Your task to perform on an android device: turn off wifi Image 0: 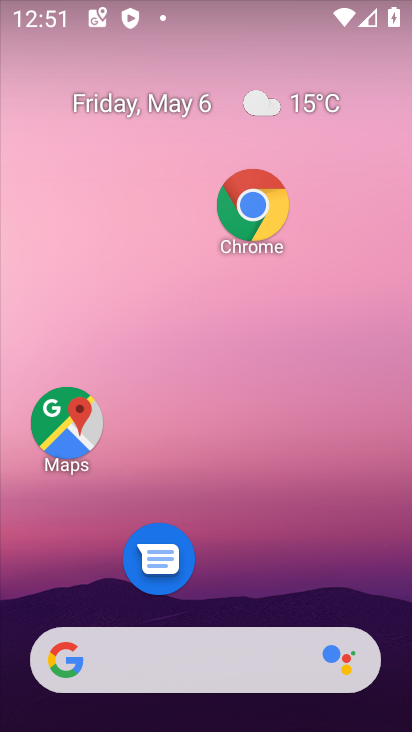
Step 0: drag from (222, 598) to (223, 45)
Your task to perform on an android device: turn off wifi Image 1: 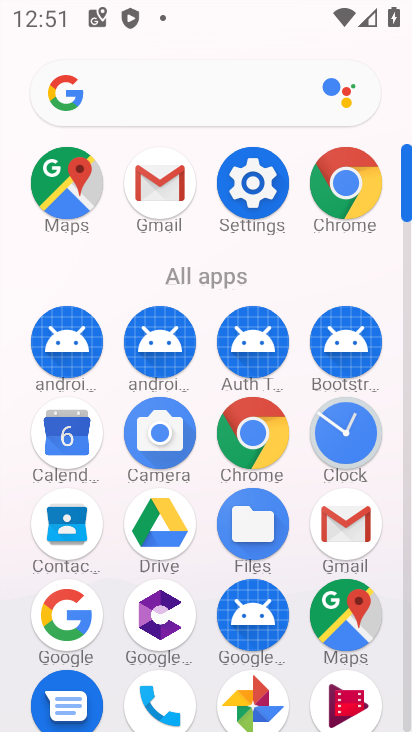
Step 1: click (255, 181)
Your task to perform on an android device: turn off wifi Image 2: 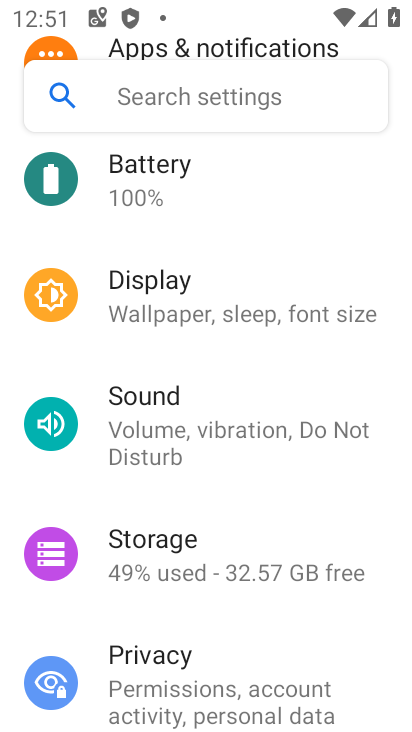
Step 2: drag from (255, 181) to (231, 429)
Your task to perform on an android device: turn off wifi Image 3: 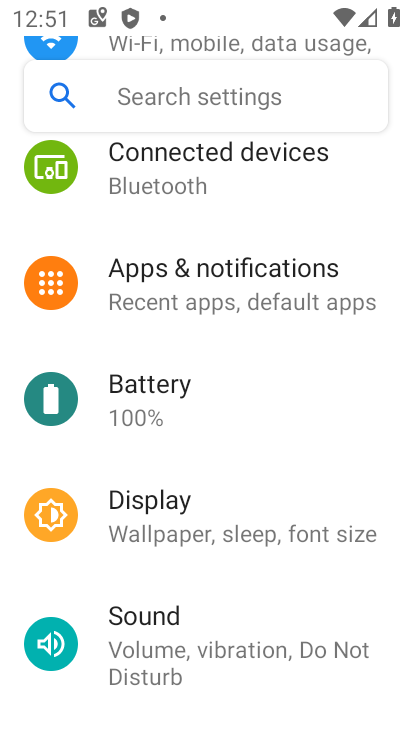
Step 3: drag from (238, 272) to (228, 596)
Your task to perform on an android device: turn off wifi Image 4: 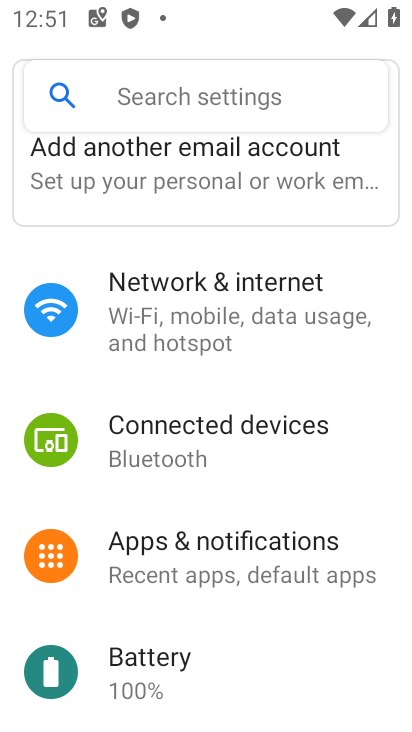
Step 4: click (178, 294)
Your task to perform on an android device: turn off wifi Image 5: 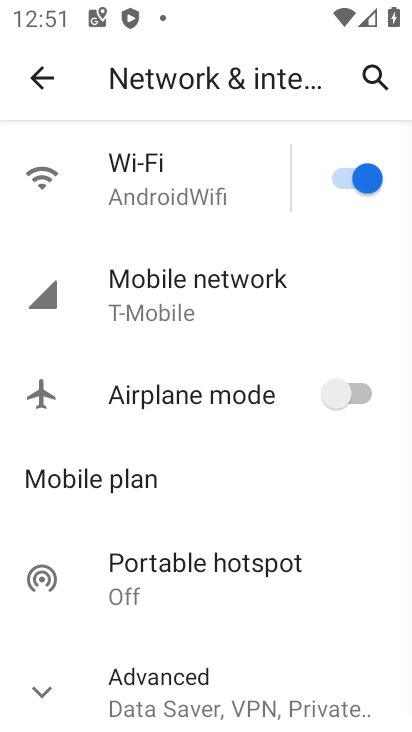
Step 5: click (357, 189)
Your task to perform on an android device: turn off wifi Image 6: 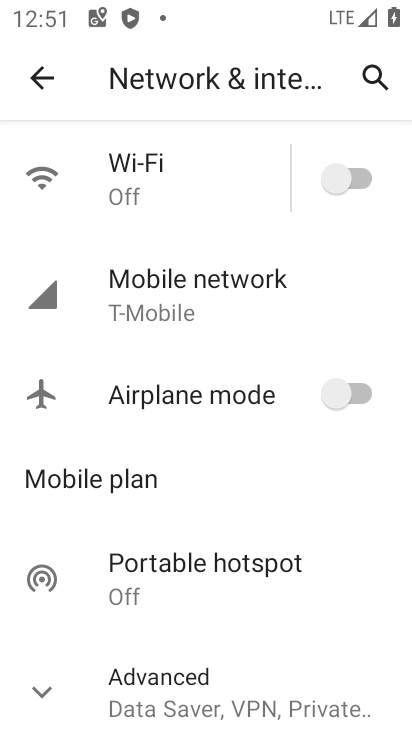
Step 6: task complete